Your task to perform on an android device: open app "Microsoft Authenticator" (install if not already installed) Image 0: 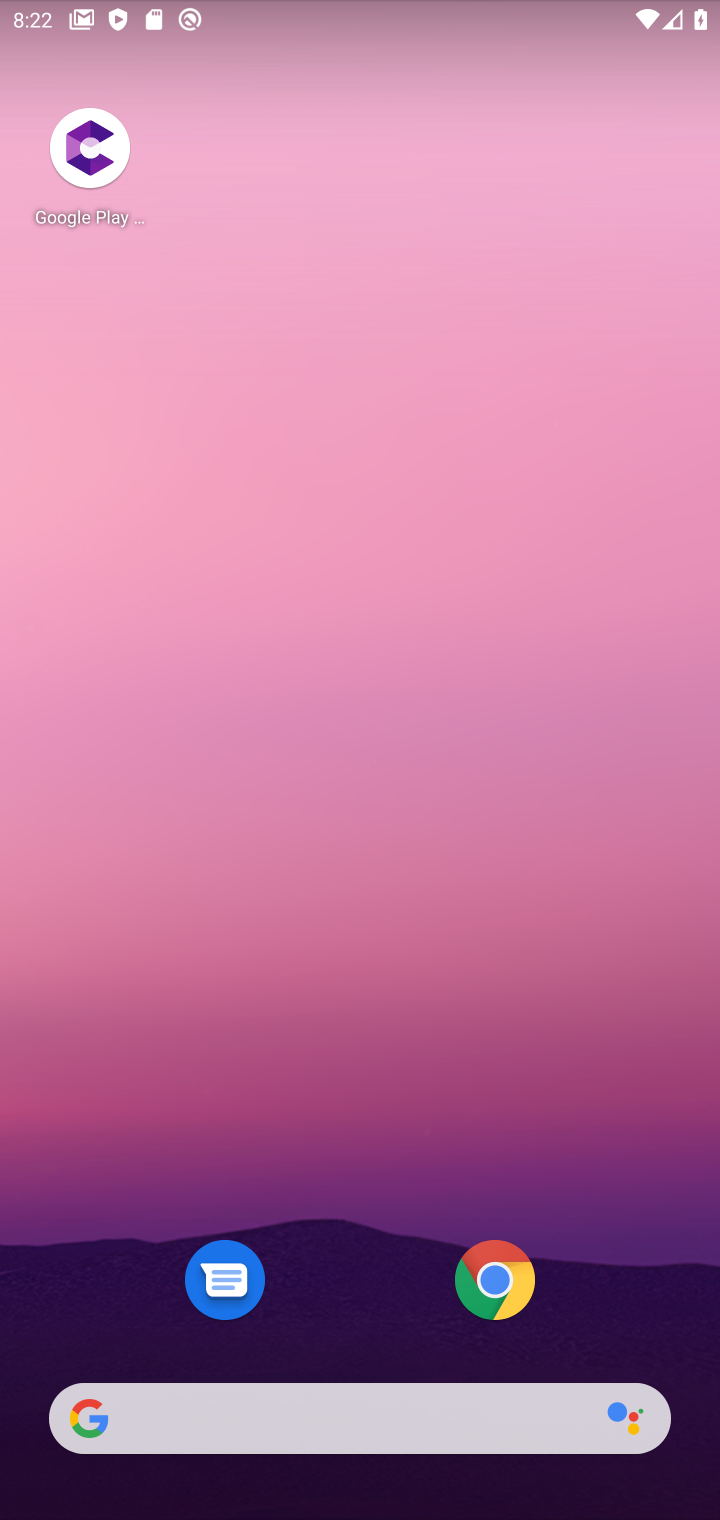
Step 0: drag from (328, 1190) to (357, 407)
Your task to perform on an android device: open app "Microsoft Authenticator" (install if not already installed) Image 1: 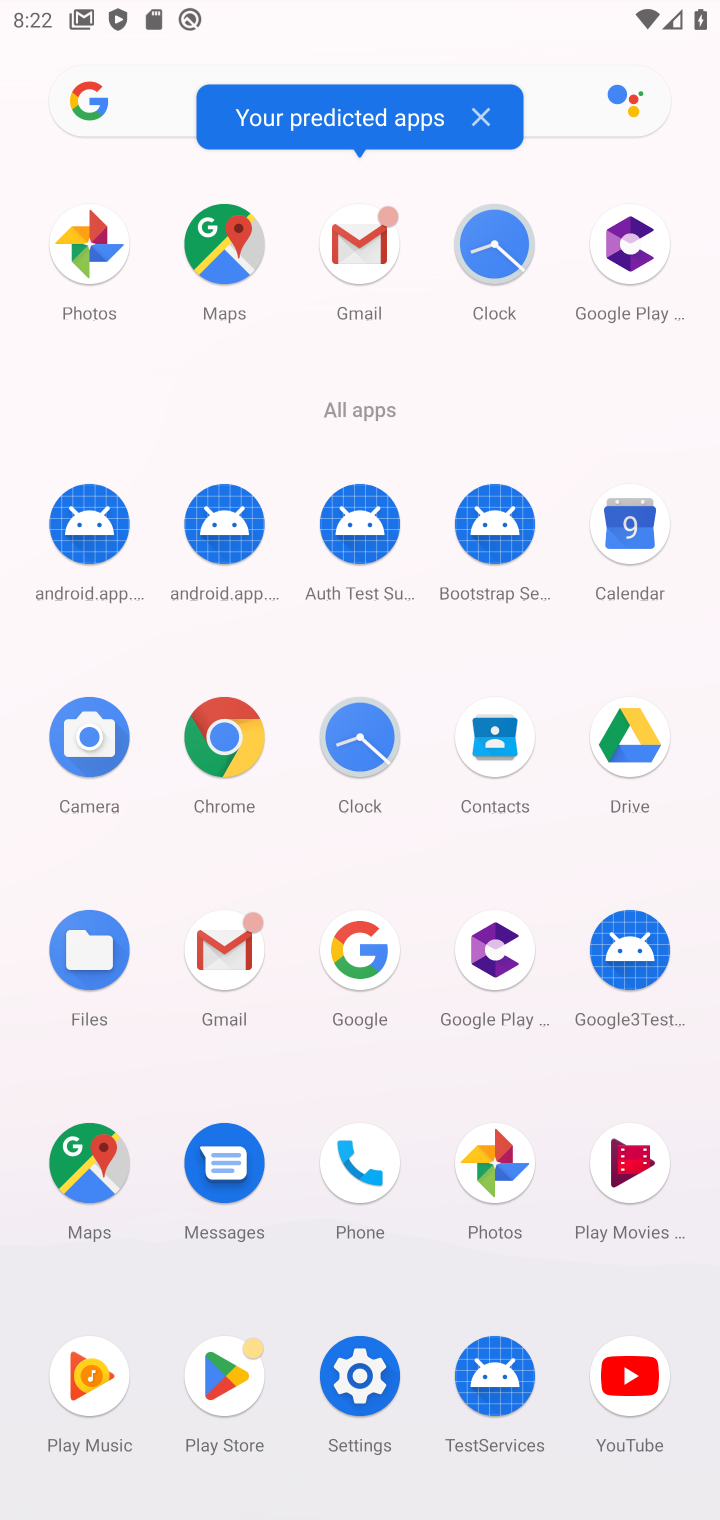
Step 1: click (220, 1359)
Your task to perform on an android device: open app "Microsoft Authenticator" (install if not already installed) Image 2: 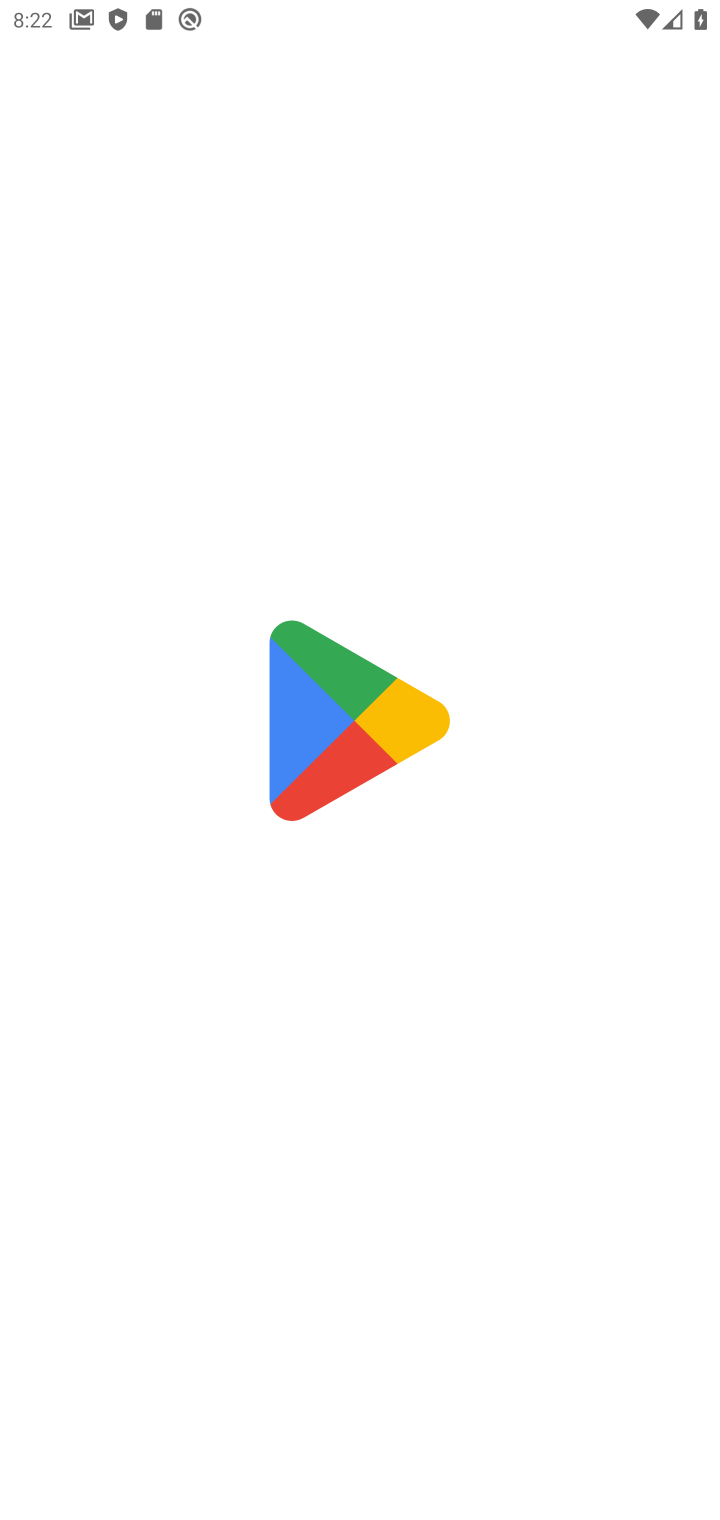
Step 2: click (226, 1376)
Your task to perform on an android device: open app "Microsoft Authenticator" (install if not already installed) Image 3: 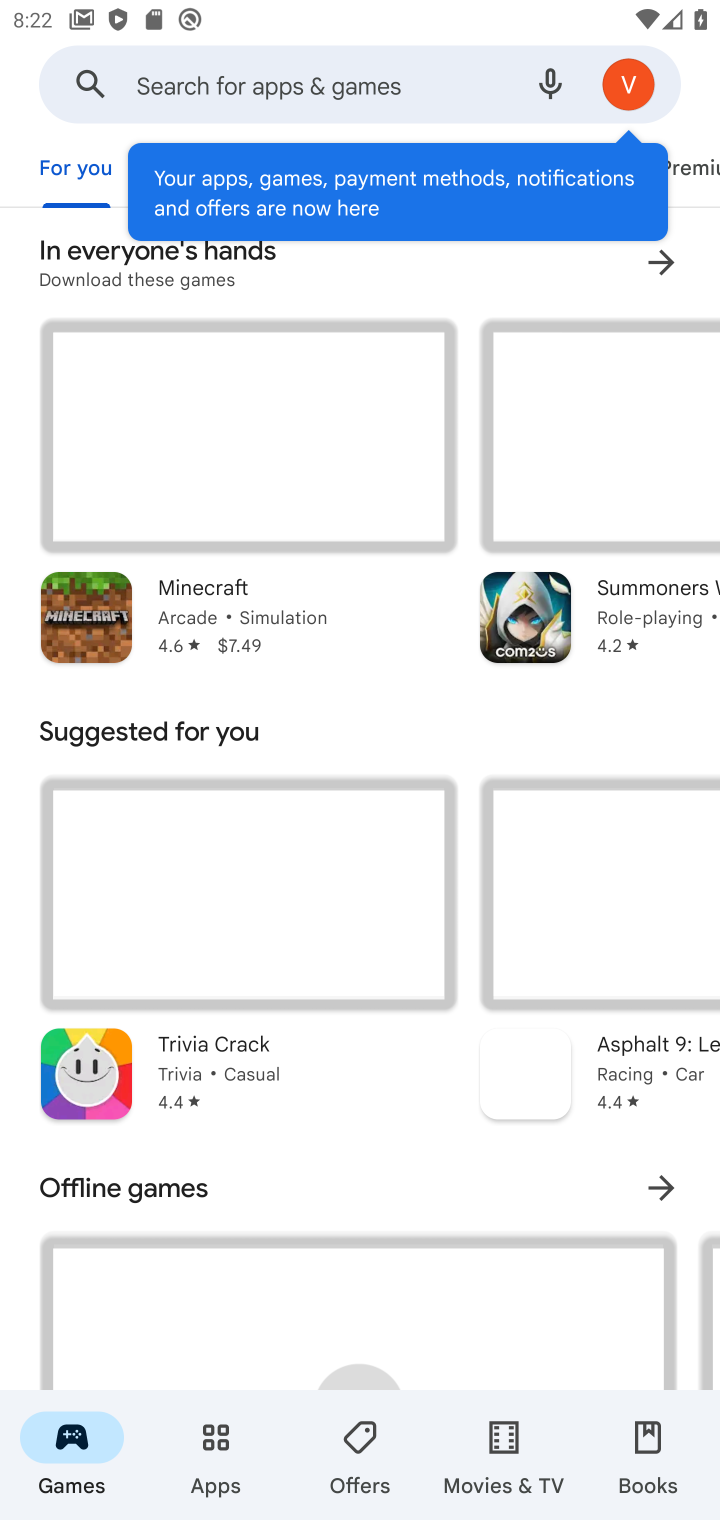
Step 3: click (167, 76)
Your task to perform on an android device: open app "Microsoft Authenticator" (install if not already installed) Image 4: 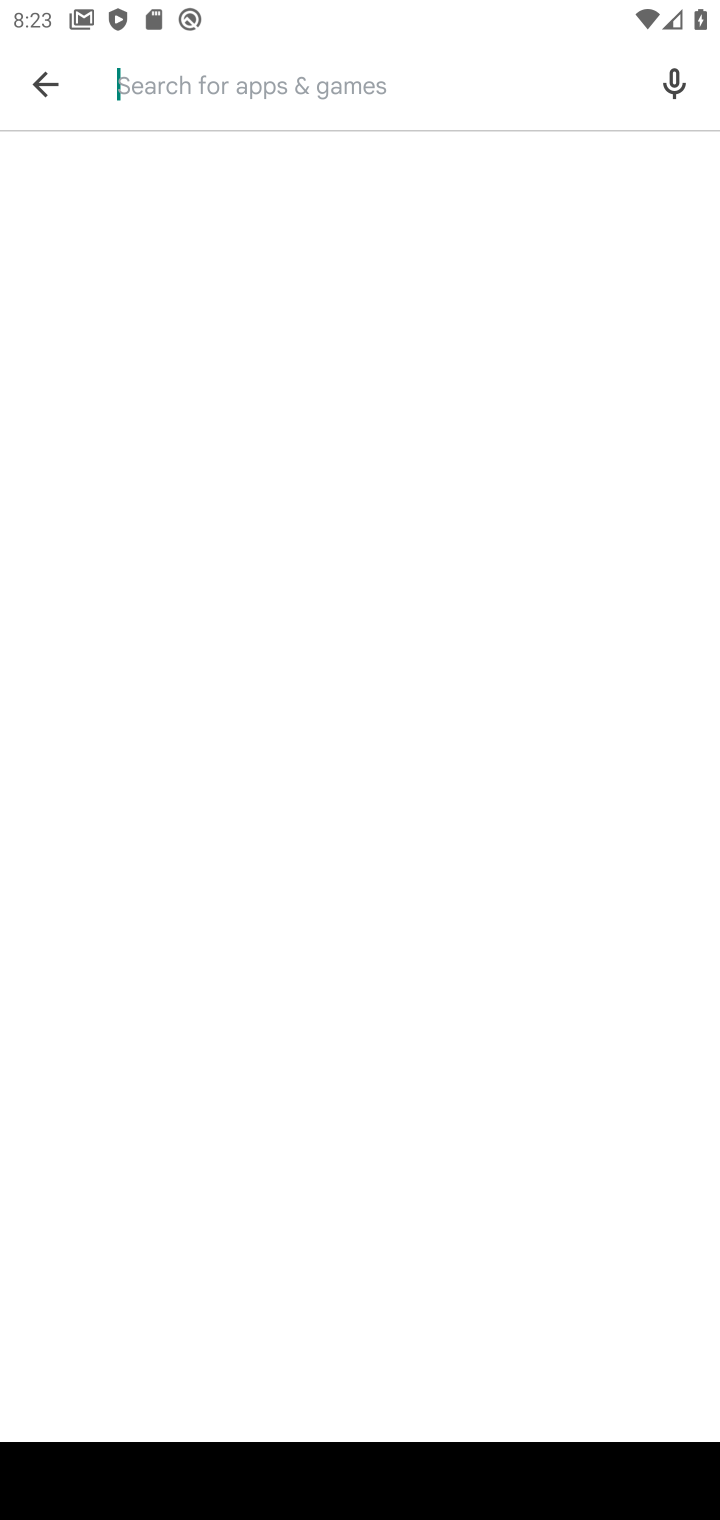
Step 4: type "microsoft authenticator"
Your task to perform on an android device: open app "Microsoft Authenticator" (install if not already installed) Image 5: 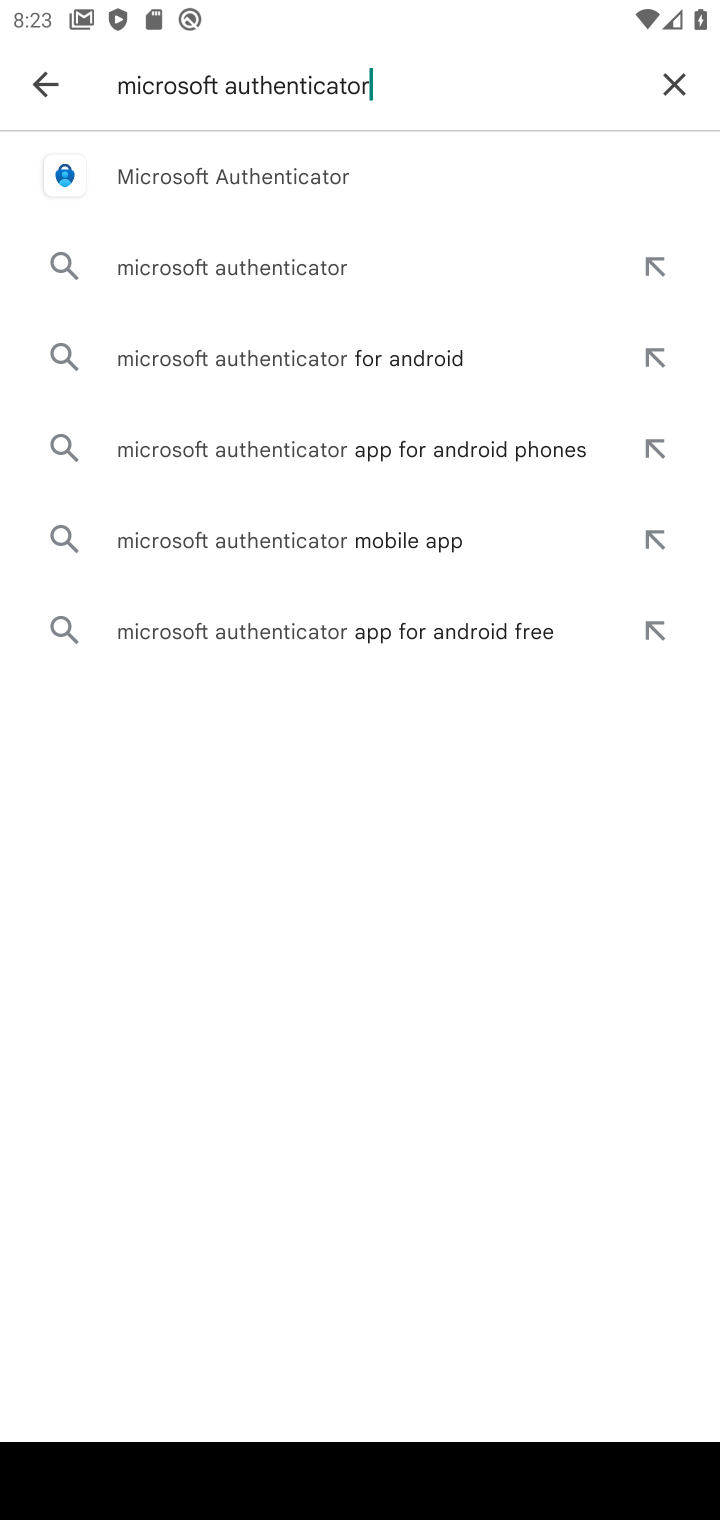
Step 5: click (180, 180)
Your task to perform on an android device: open app "Microsoft Authenticator" (install if not already installed) Image 6: 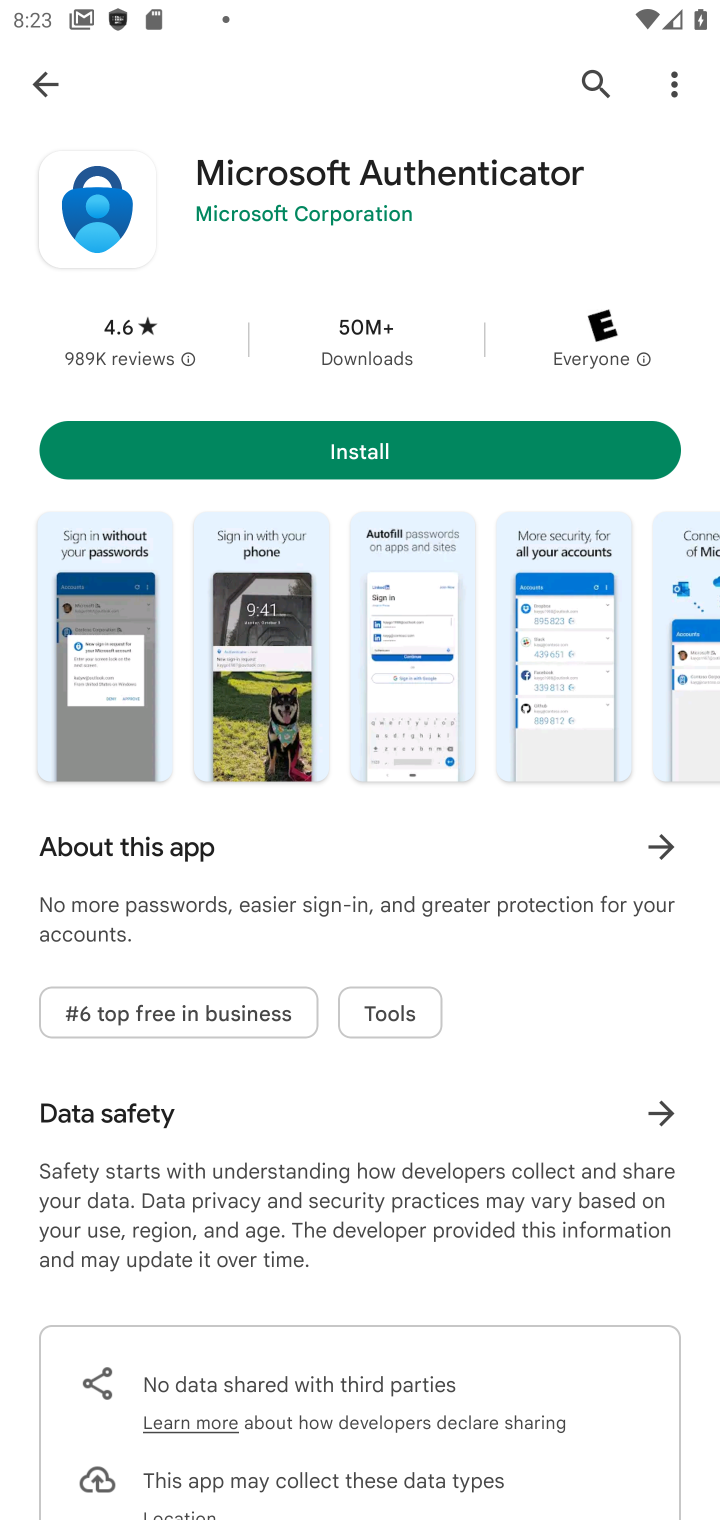
Step 6: click (348, 458)
Your task to perform on an android device: open app "Microsoft Authenticator" (install if not already installed) Image 7: 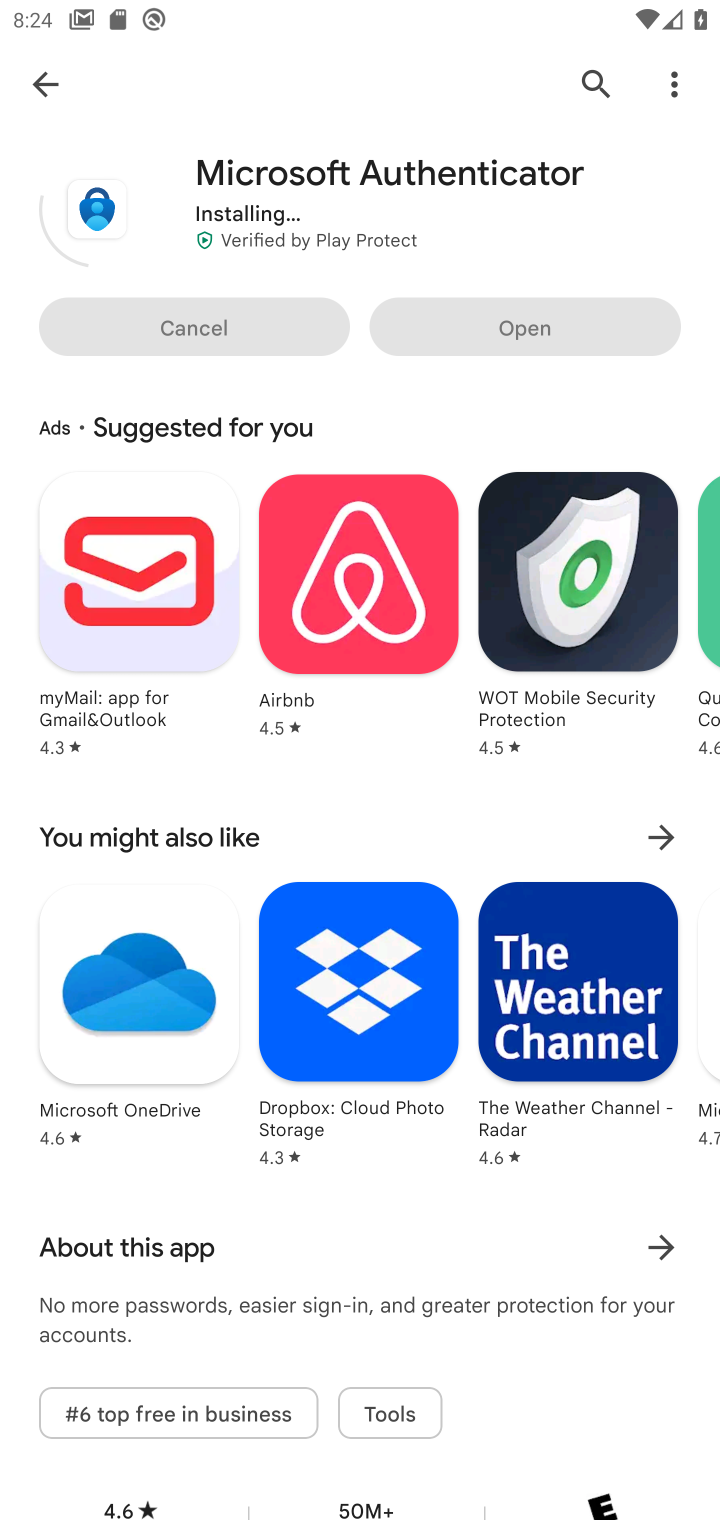
Step 7: task complete